Your task to perform on an android device: change keyboard looks Image 0: 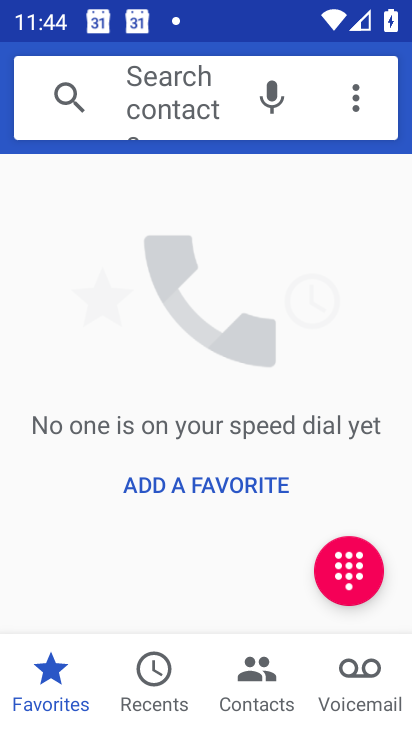
Step 0: press home button
Your task to perform on an android device: change keyboard looks Image 1: 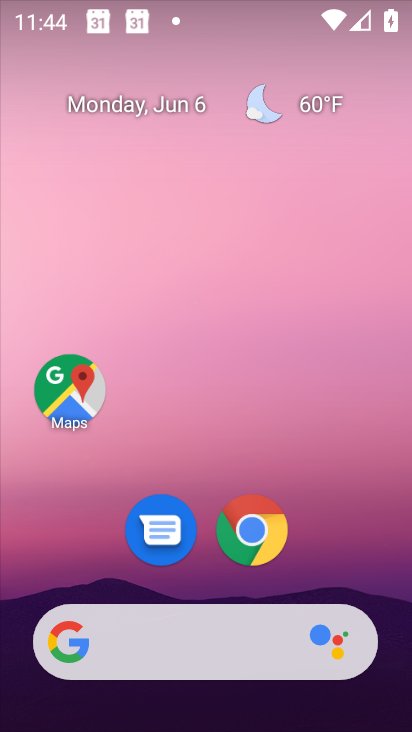
Step 1: drag from (346, 567) to (165, 22)
Your task to perform on an android device: change keyboard looks Image 2: 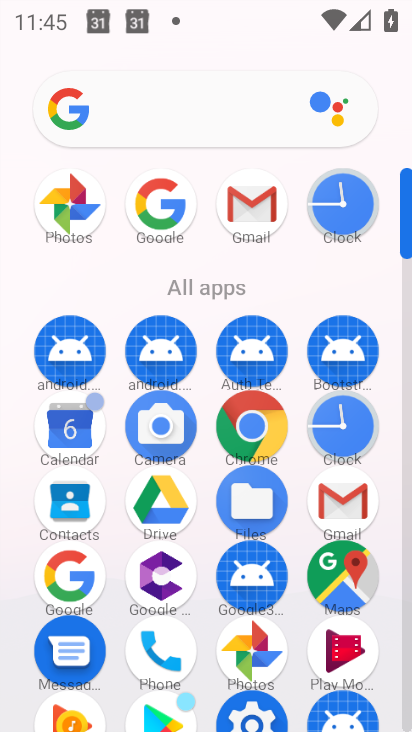
Step 2: click (264, 717)
Your task to perform on an android device: change keyboard looks Image 3: 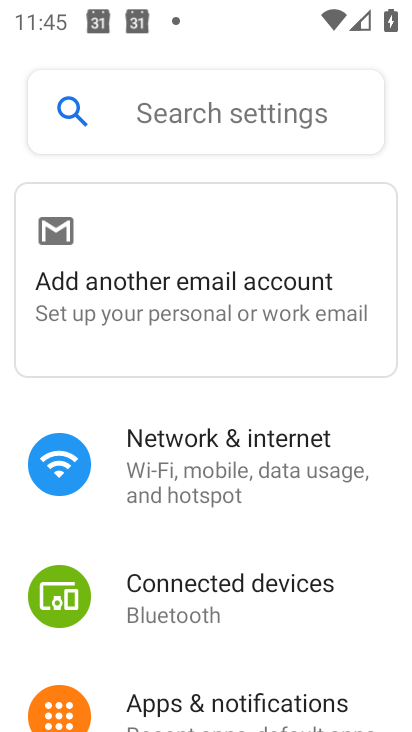
Step 3: drag from (342, 587) to (235, 62)
Your task to perform on an android device: change keyboard looks Image 4: 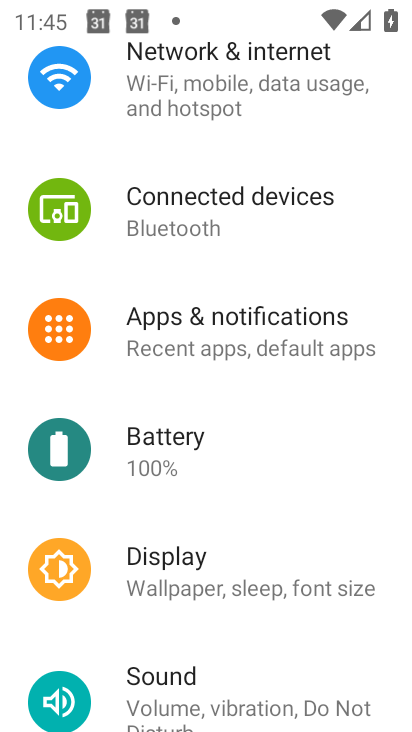
Step 4: drag from (254, 607) to (251, 63)
Your task to perform on an android device: change keyboard looks Image 5: 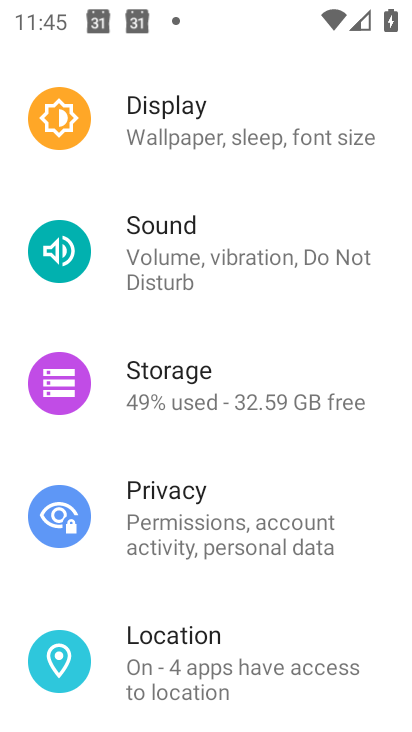
Step 5: drag from (223, 596) to (234, 49)
Your task to perform on an android device: change keyboard looks Image 6: 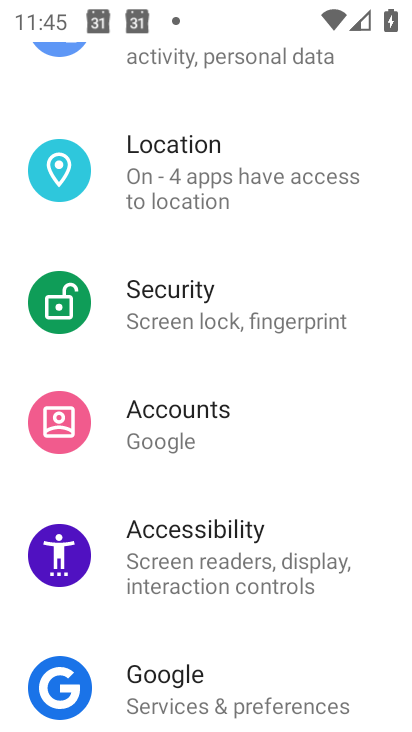
Step 6: drag from (250, 641) to (219, 143)
Your task to perform on an android device: change keyboard looks Image 7: 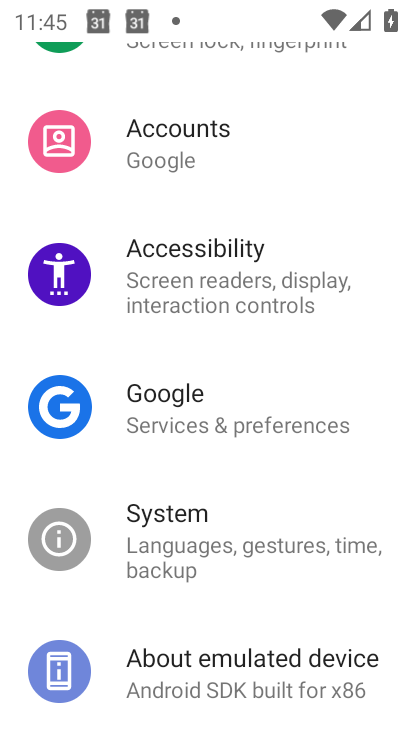
Step 7: click (179, 517)
Your task to perform on an android device: change keyboard looks Image 8: 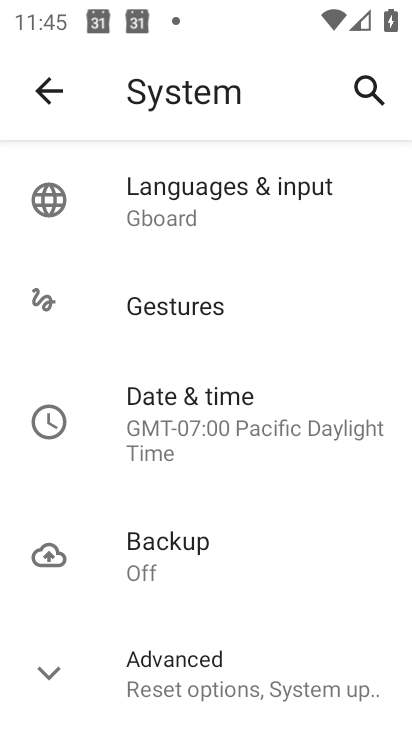
Step 8: click (204, 205)
Your task to perform on an android device: change keyboard looks Image 9: 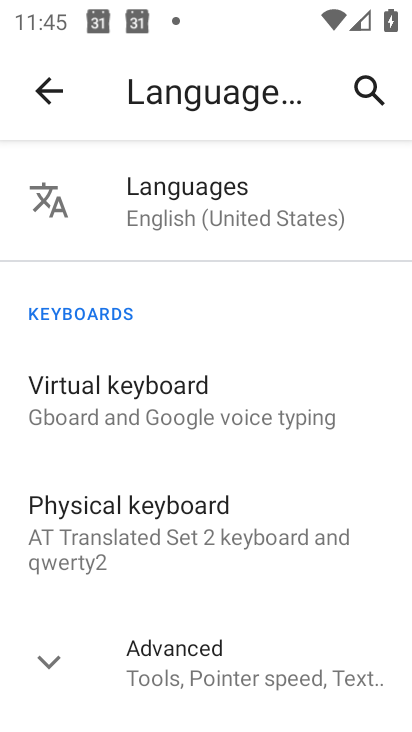
Step 9: click (170, 406)
Your task to perform on an android device: change keyboard looks Image 10: 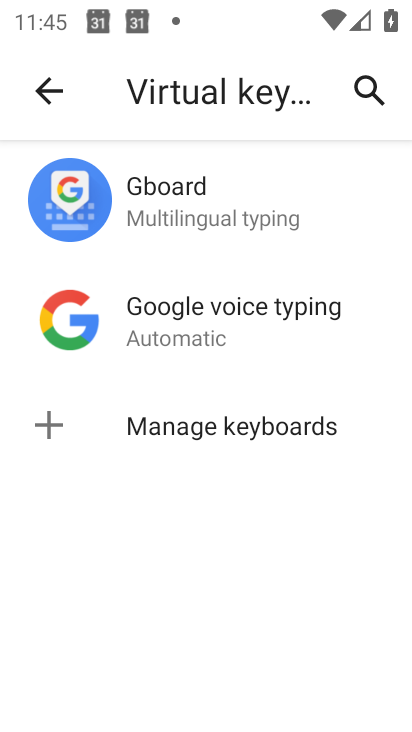
Step 10: click (158, 194)
Your task to perform on an android device: change keyboard looks Image 11: 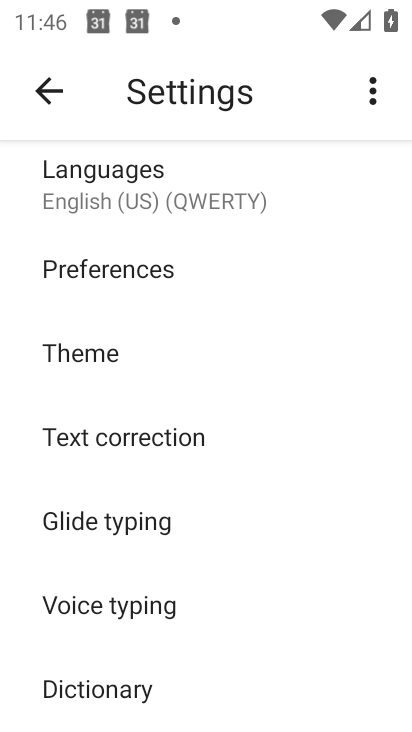
Step 11: click (130, 326)
Your task to perform on an android device: change keyboard looks Image 12: 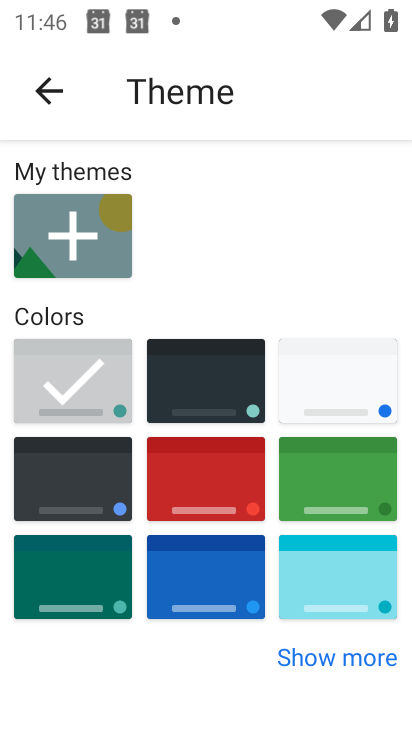
Step 12: click (218, 490)
Your task to perform on an android device: change keyboard looks Image 13: 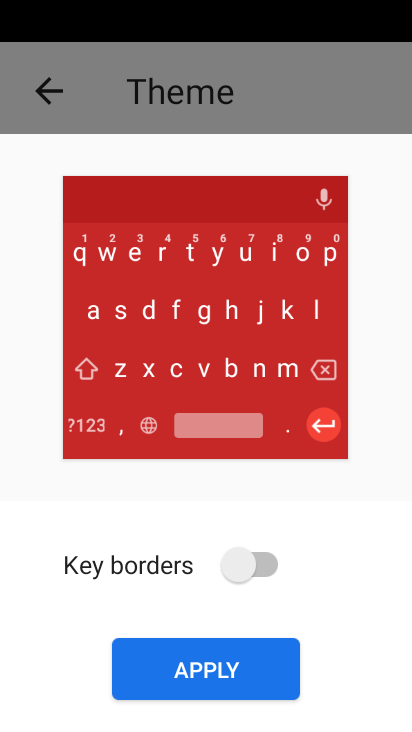
Step 13: click (237, 676)
Your task to perform on an android device: change keyboard looks Image 14: 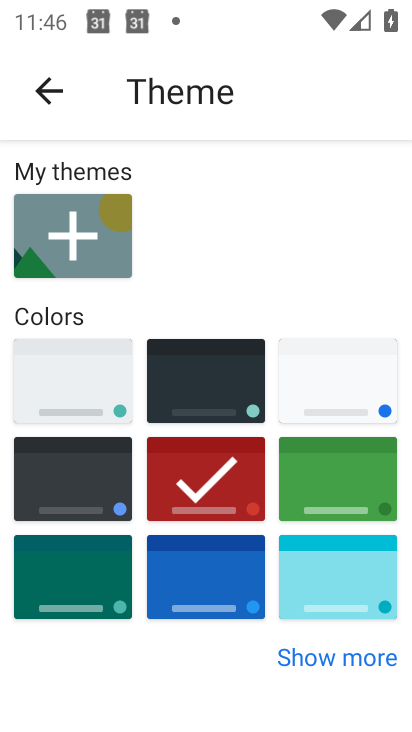
Step 14: task complete